Your task to perform on an android device: manage bookmarks in the chrome app Image 0: 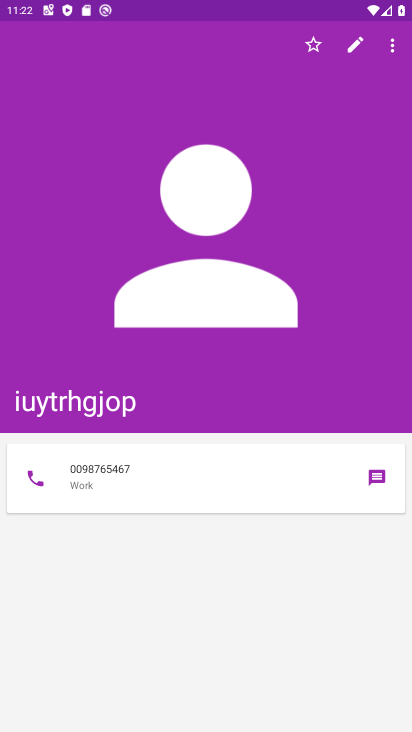
Step 0: press home button
Your task to perform on an android device: manage bookmarks in the chrome app Image 1: 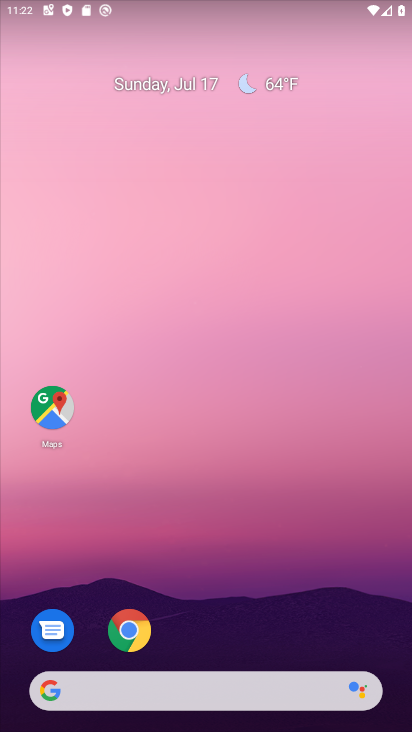
Step 1: click (127, 627)
Your task to perform on an android device: manage bookmarks in the chrome app Image 2: 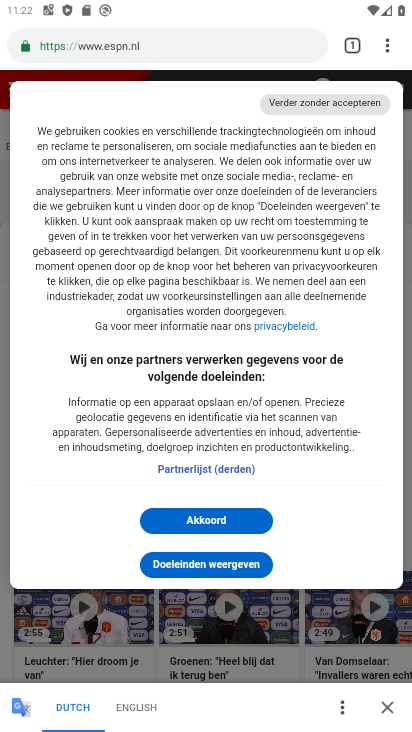
Step 2: click (385, 50)
Your task to perform on an android device: manage bookmarks in the chrome app Image 3: 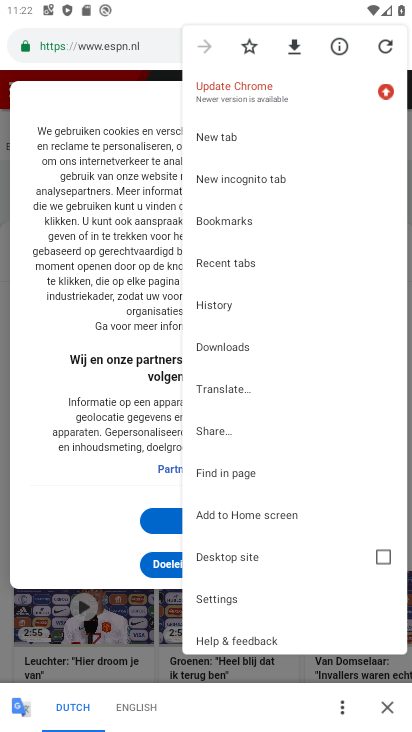
Step 3: click (219, 224)
Your task to perform on an android device: manage bookmarks in the chrome app Image 4: 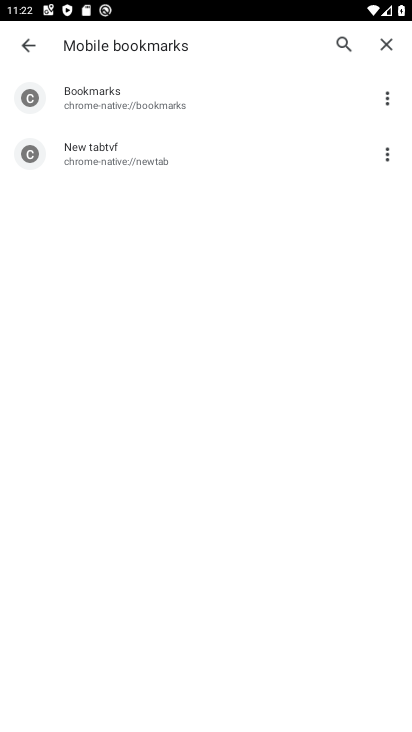
Step 4: click (73, 147)
Your task to perform on an android device: manage bookmarks in the chrome app Image 5: 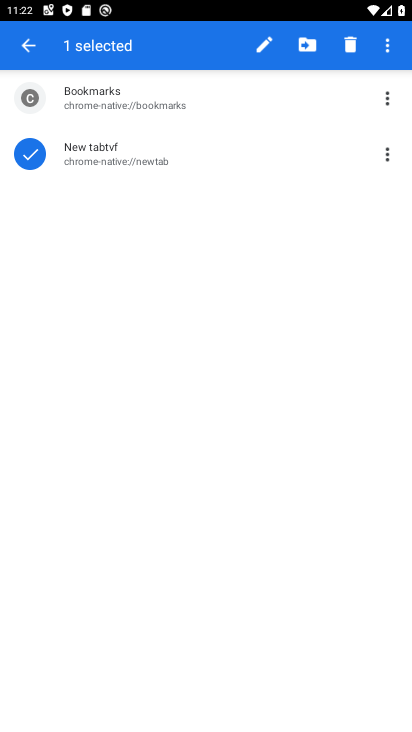
Step 5: click (271, 48)
Your task to perform on an android device: manage bookmarks in the chrome app Image 6: 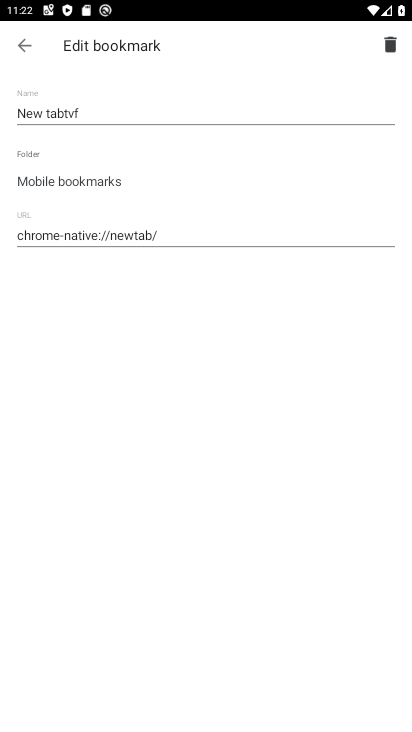
Step 6: click (116, 107)
Your task to perform on an android device: manage bookmarks in the chrome app Image 7: 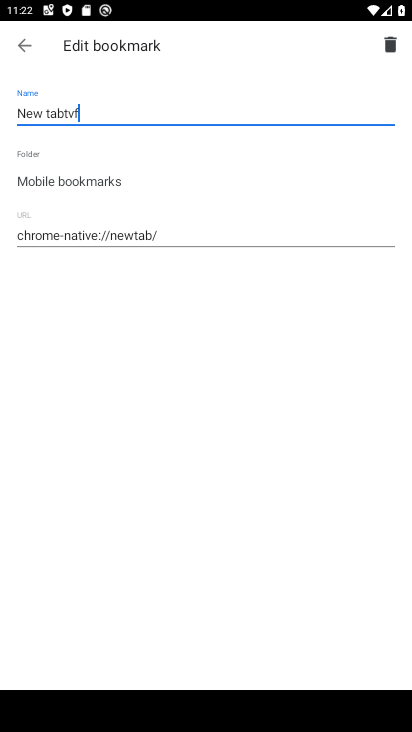
Step 7: type "mfvc"
Your task to perform on an android device: manage bookmarks in the chrome app Image 8: 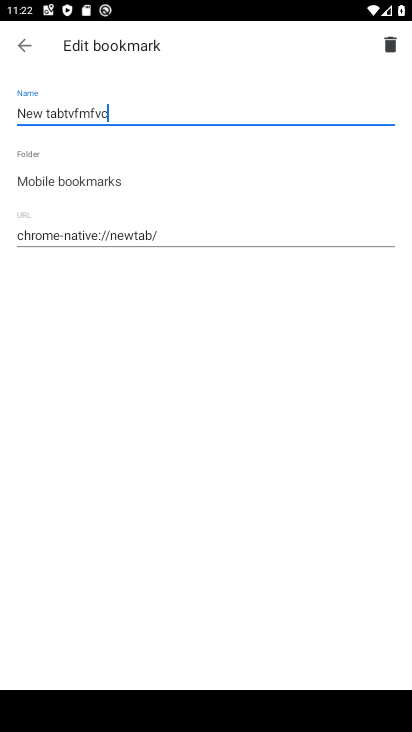
Step 8: task complete